Your task to perform on an android device: Clear the shopping cart on newegg.com. Image 0: 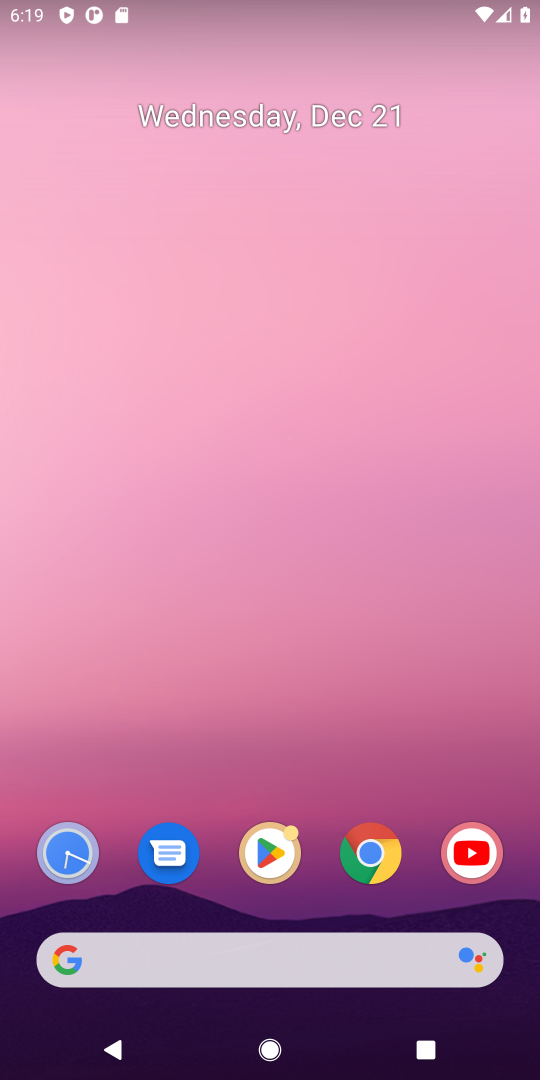
Step 0: click (371, 879)
Your task to perform on an android device: Clear the shopping cart on newegg.com. Image 1: 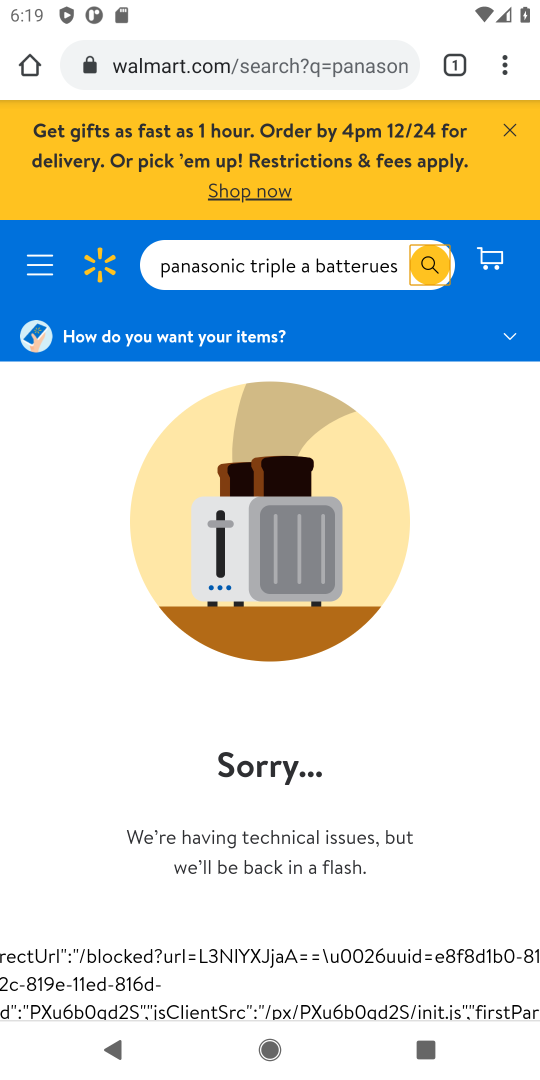
Step 1: click (508, 129)
Your task to perform on an android device: Clear the shopping cart on newegg.com. Image 2: 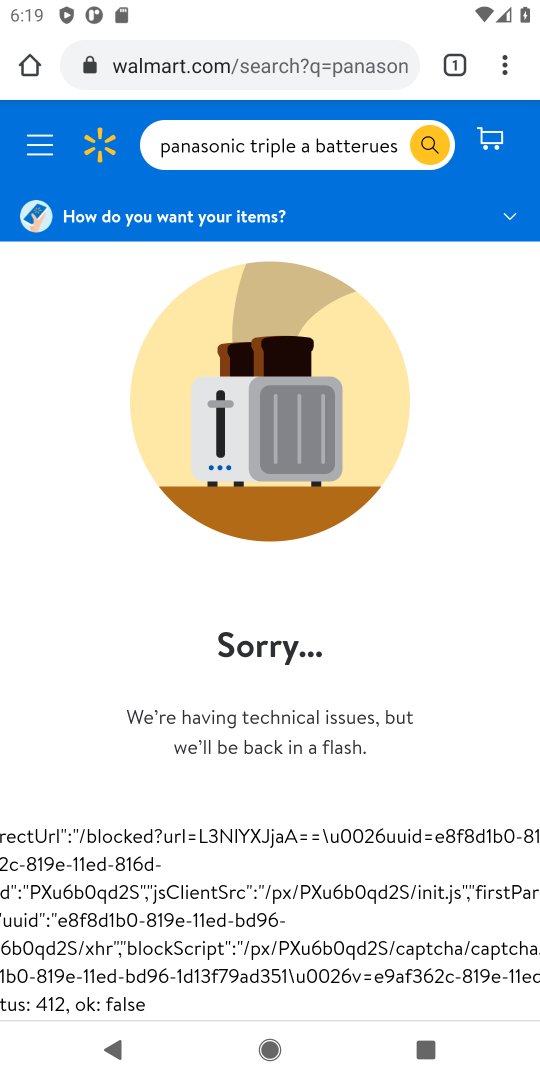
Step 2: click (462, 64)
Your task to perform on an android device: Clear the shopping cart on newegg.com. Image 3: 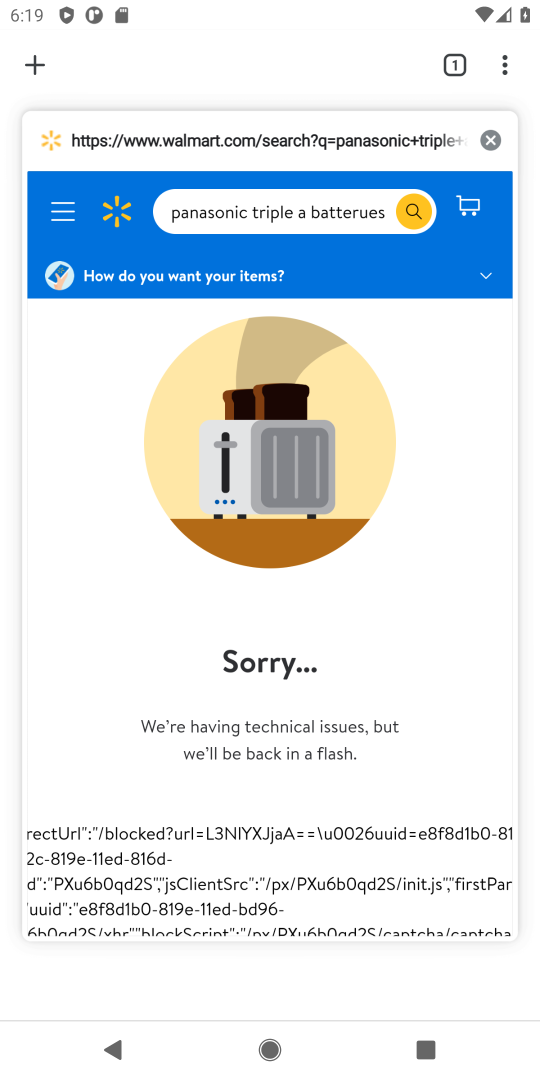
Step 3: click (31, 68)
Your task to perform on an android device: Clear the shopping cart on newegg.com. Image 4: 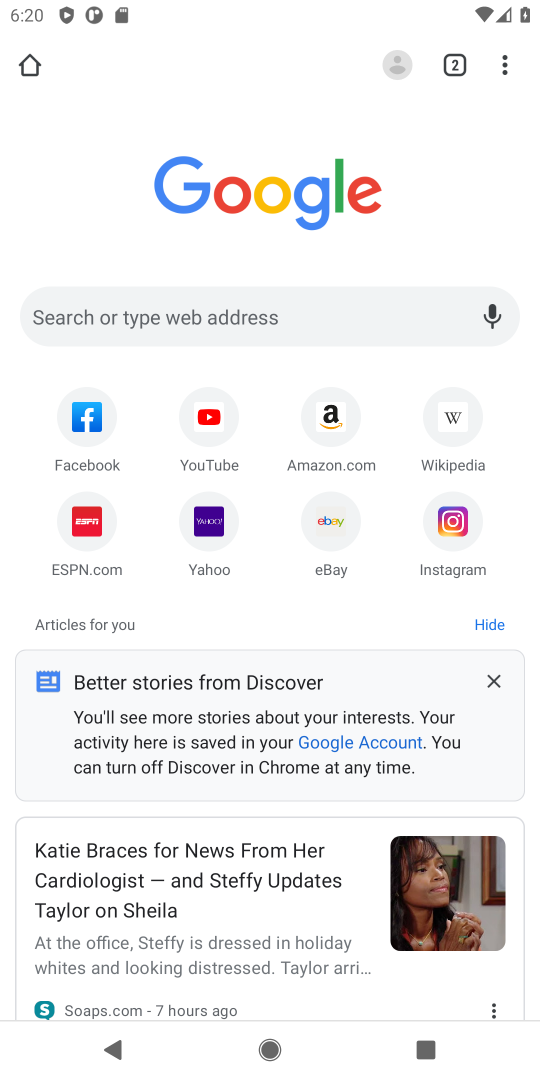
Step 4: click (237, 305)
Your task to perform on an android device: Clear the shopping cart on newegg.com. Image 5: 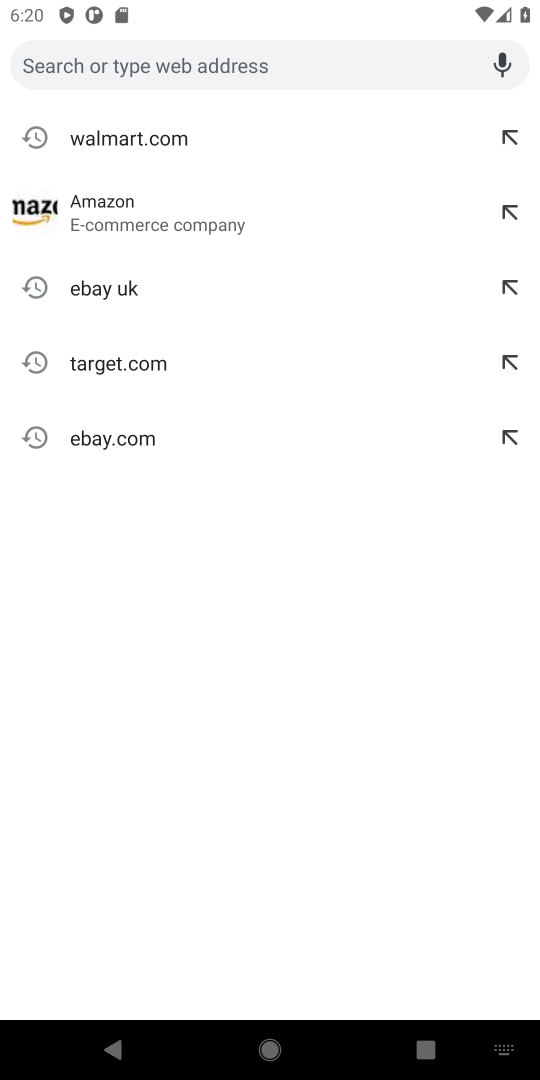
Step 5: type "newegg"
Your task to perform on an android device: Clear the shopping cart on newegg.com. Image 6: 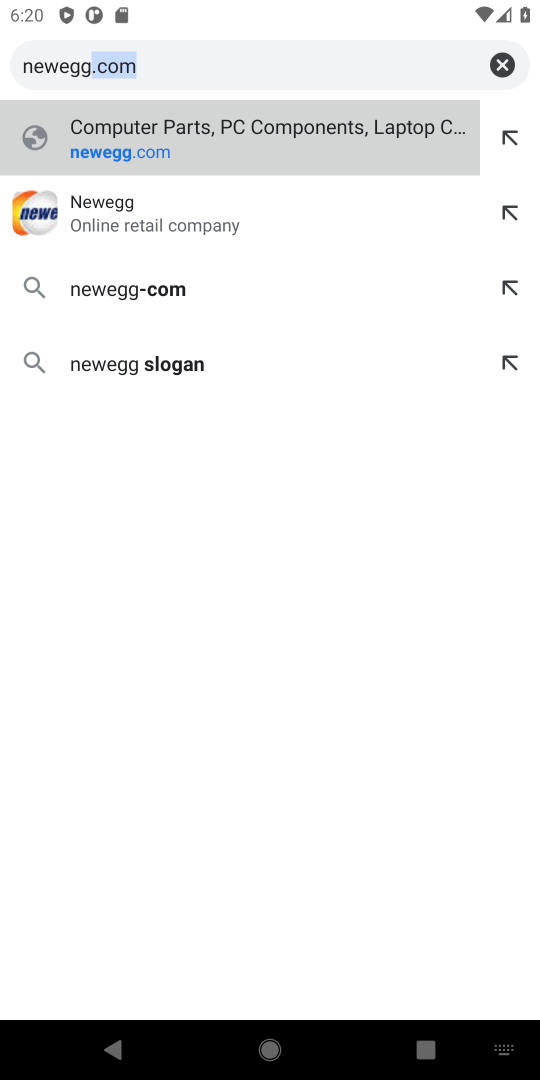
Step 6: click (235, 65)
Your task to perform on an android device: Clear the shopping cart on newegg.com. Image 7: 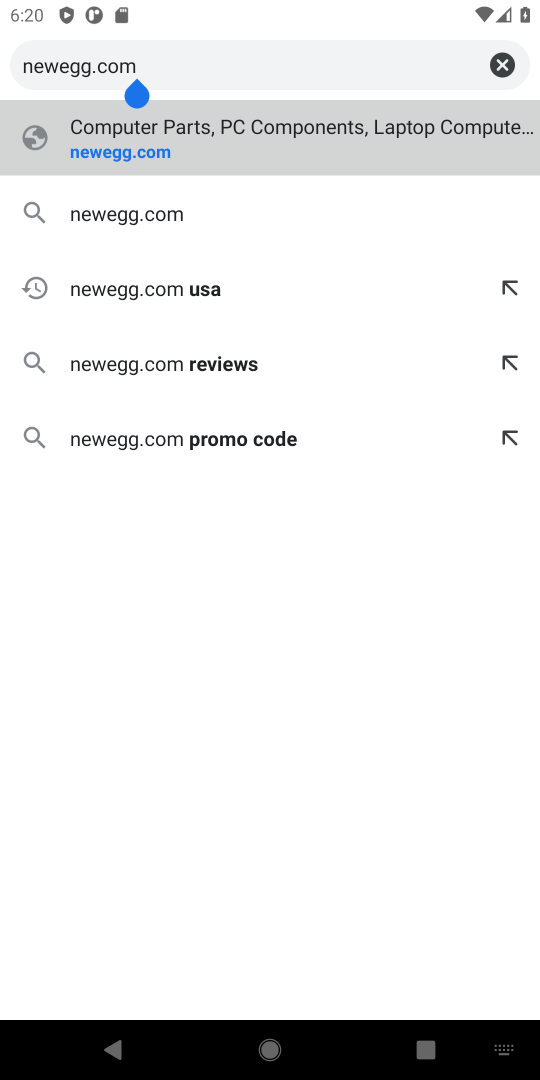
Step 7: click (201, 138)
Your task to perform on an android device: Clear the shopping cart on newegg.com. Image 8: 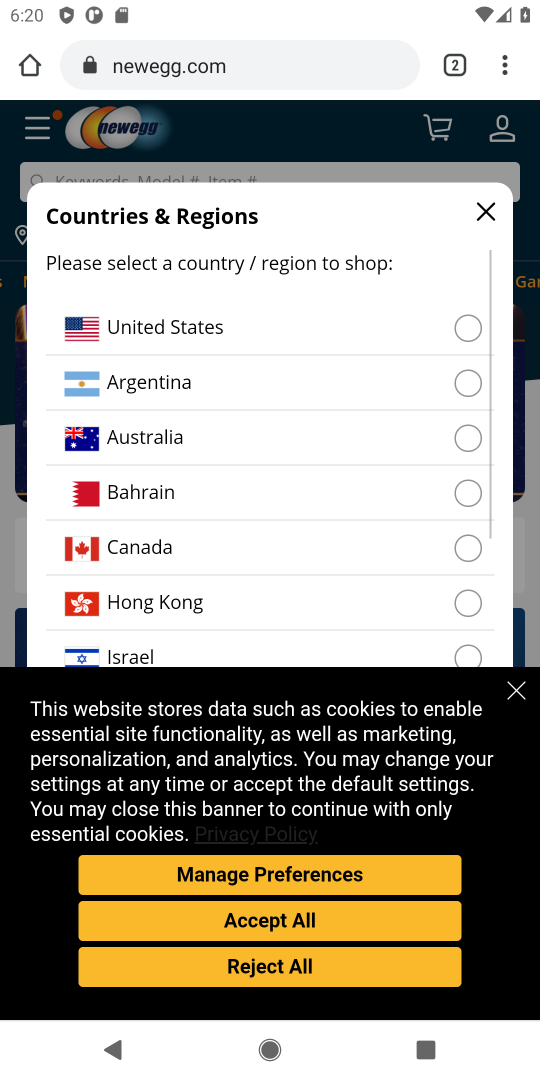
Step 8: click (299, 919)
Your task to perform on an android device: Clear the shopping cart on newegg.com. Image 9: 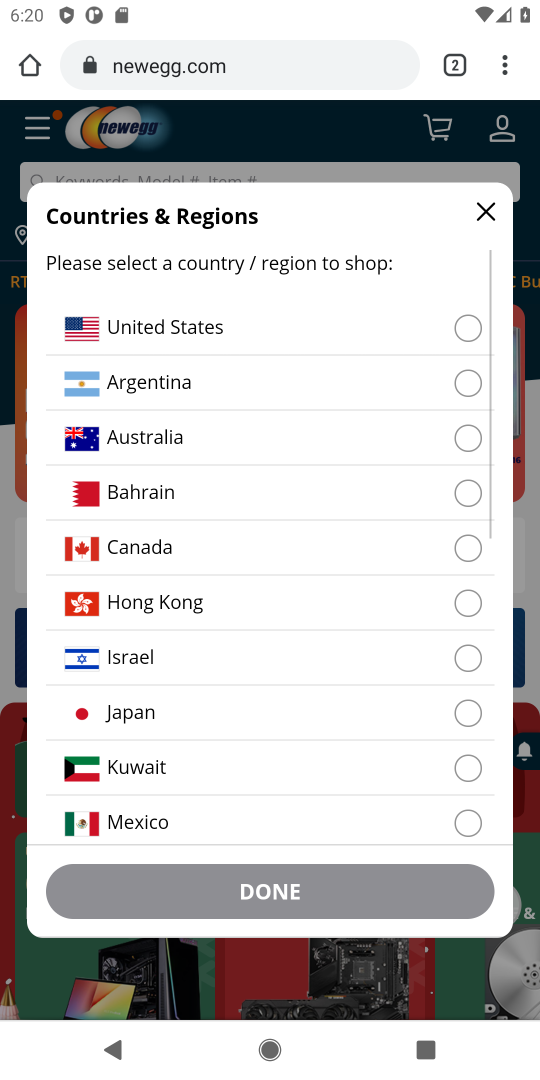
Step 9: click (463, 342)
Your task to perform on an android device: Clear the shopping cart on newegg.com. Image 10: 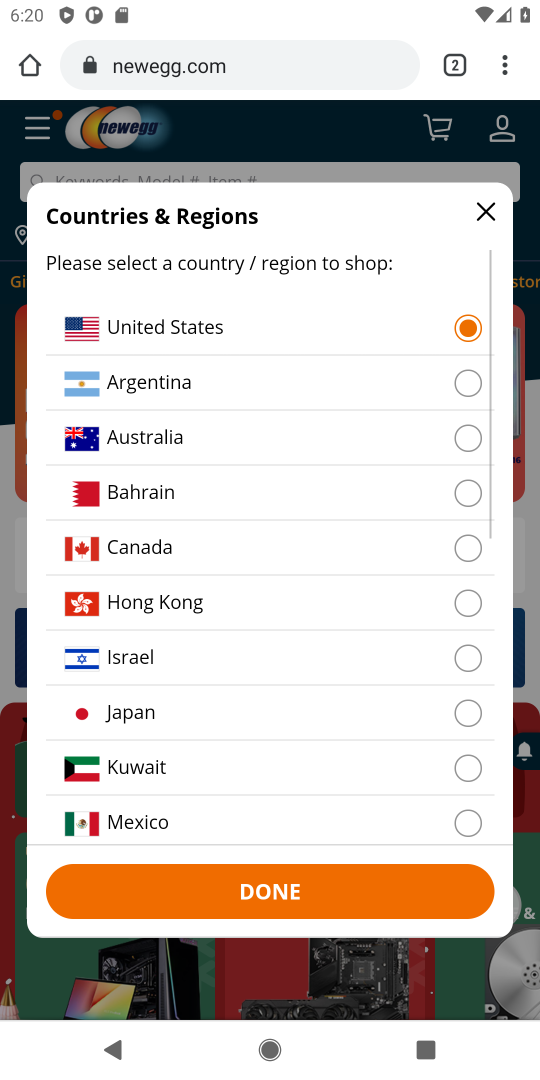
Step 10: click (237, 881)
Your task to perform on an android device: Clear the shopping cart on newegg.com. Image 11: 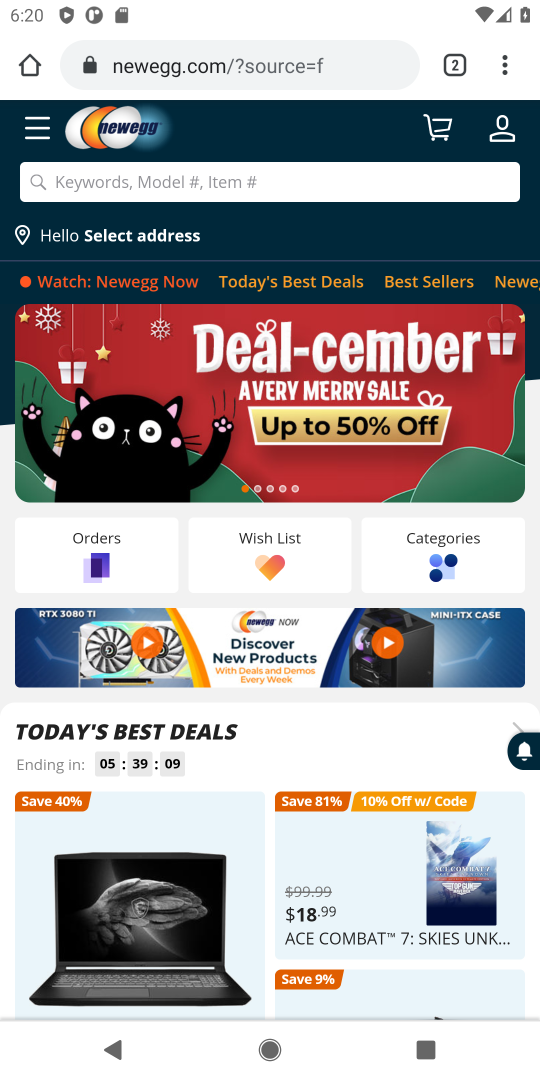
Step 11: click (443, 125)
Your task to perform on an android device: Clear the shopping cart on newegg.com. Image 12: 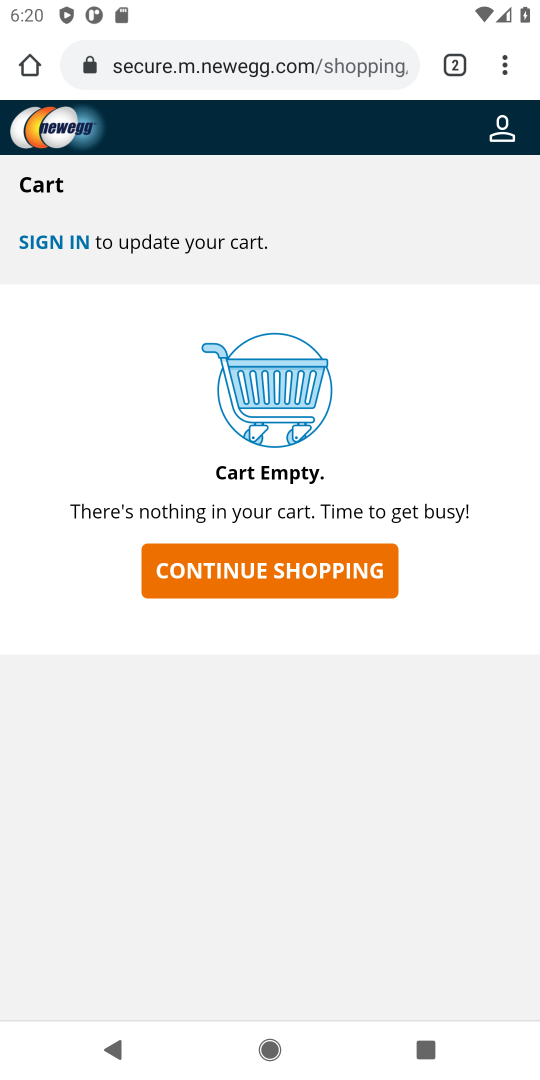
Step 12: task complete